Your task to perform on an android device: toggle pop-ups in chrome Image 0: 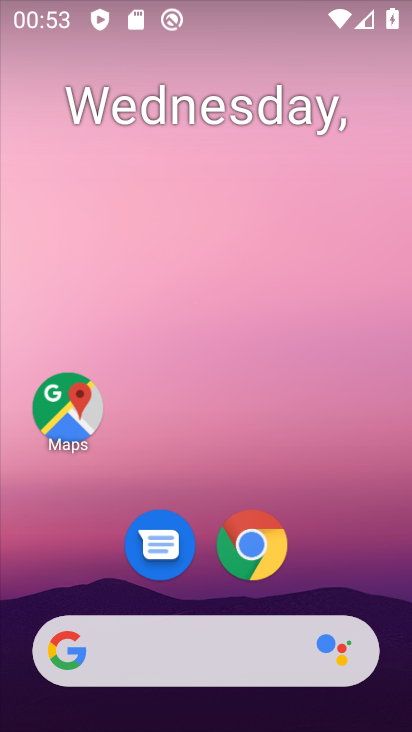
Step 0: drag from (303, 546) to (260, 71)
Your task to perform on an android device: toggle pop-ups in chrome Image 1: 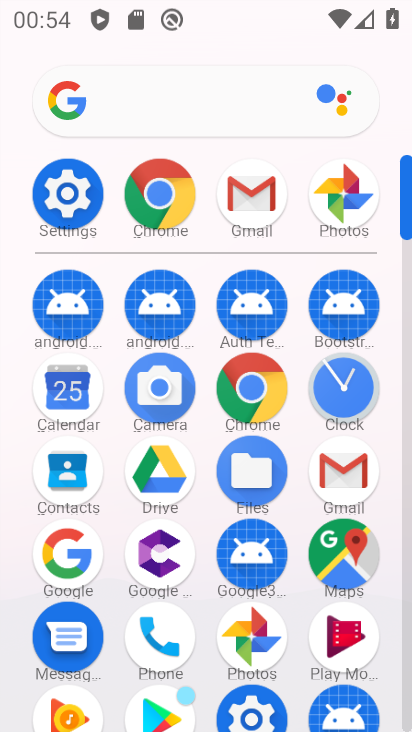
Step 1: click (258, 387)
Your task to perform on an android device: toggle pop-ups in chrome Image 2: 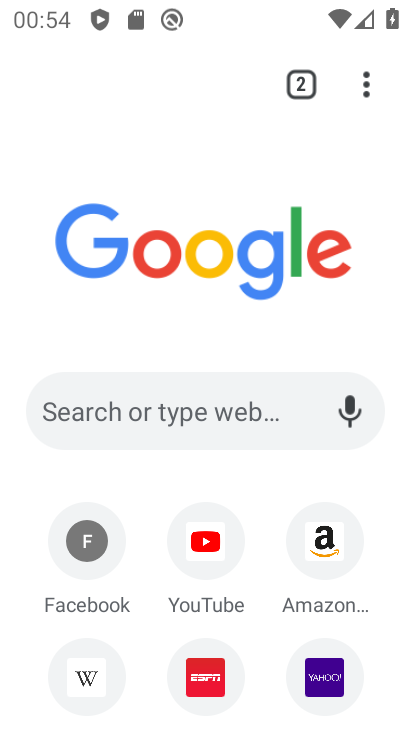
Step 2: drag from (369, 92) to (79, 592)
Your task to perform on an android device: toggle pop-ups in chrome Image 3: 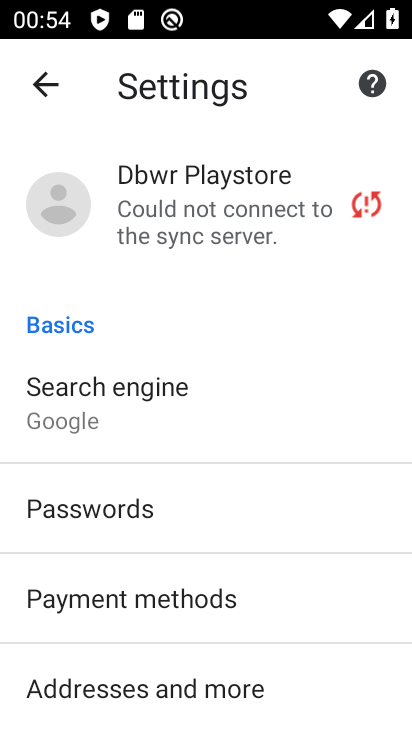
Step 3: drag from (209, 582) to (240, 192)
Your task to perform on an android device: toggle pop-ups in chrome Image 4: 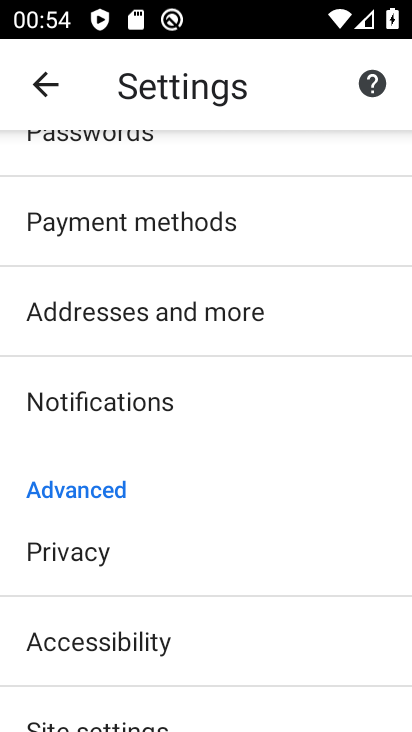
Step 4: drag from (185, 591) to (217, 279)
Your task to perform on an android device: toggle pop-ups in chrome Image 5: 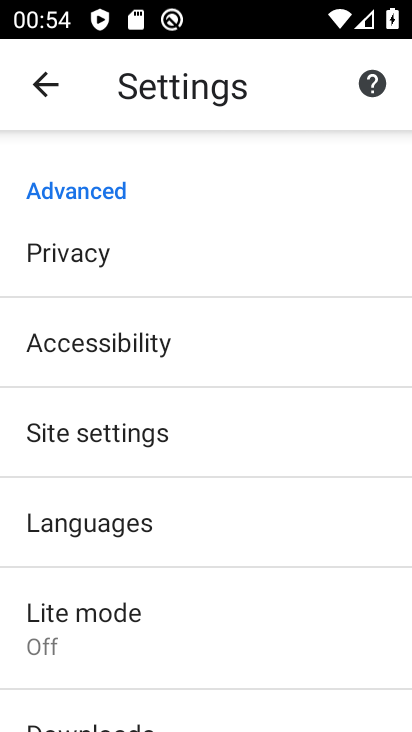
Step 5: click (185, 434)
Your task to perform on an android device: toggle pop-ups in chrome Image 6: 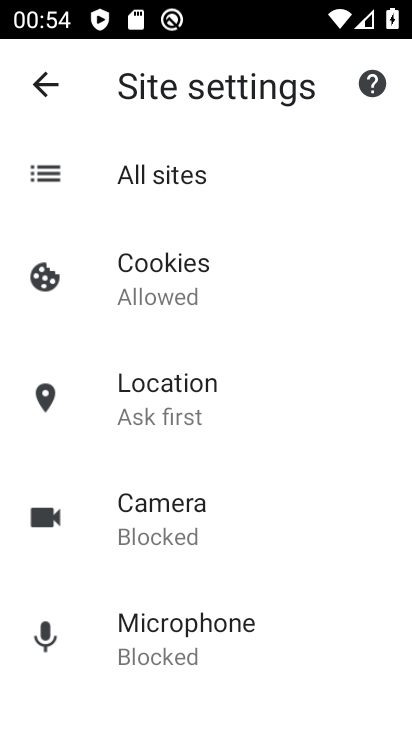
Step 6: drag from (288, 584) to (229, 153)
Your task to perform on an android device: toggle pop-ups in chrome Image 7: 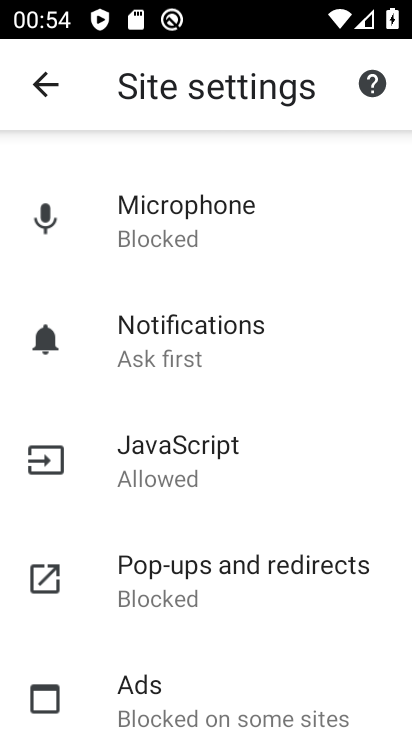
Step 7: click (235, 602)
Your task to perform on an android device: toggle pop-ups in chrome Image 8: 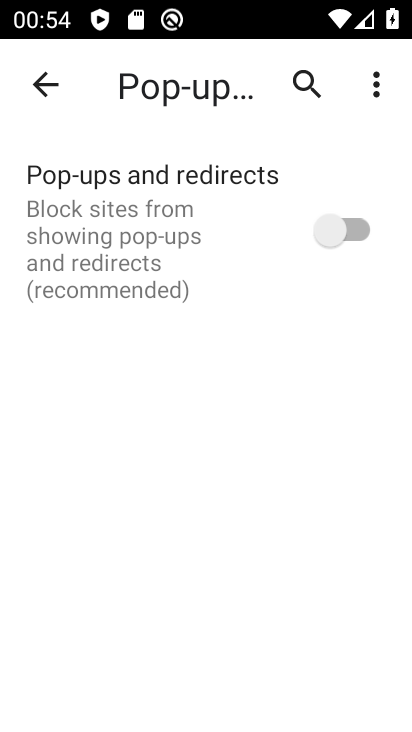
Step 8: click (354, 223)
Your task to perform on an android device: toggle pop-ups in chrome Image 9: 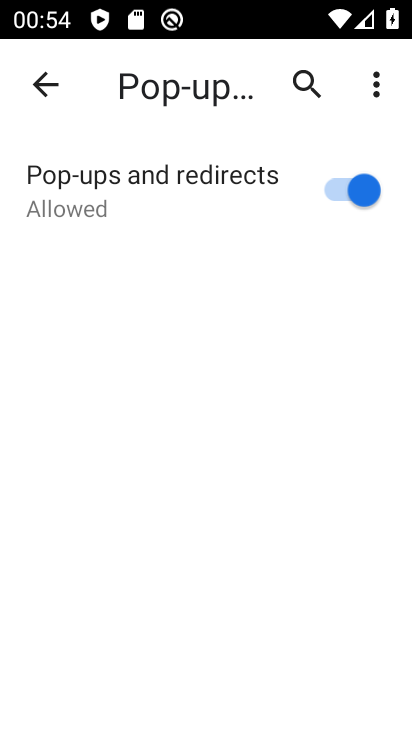
Step 9: task complete